Your task to perform on an android device: toggle notification dots Image 0: 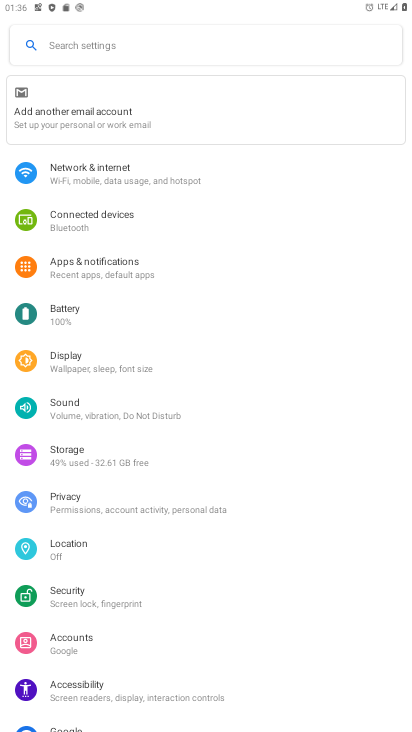
Step 0: click (107, 264)
Your task to perform on an android device: toggle notification dots Image 1: 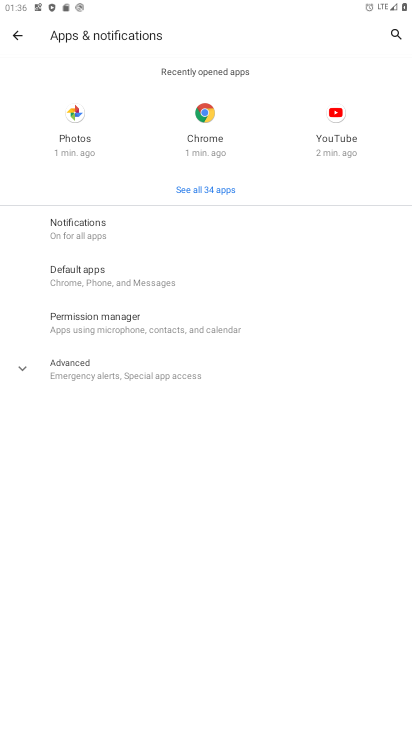
Step 1: click (78, 229)
Your task to perform on an android device: toggle notification dots Image 2: 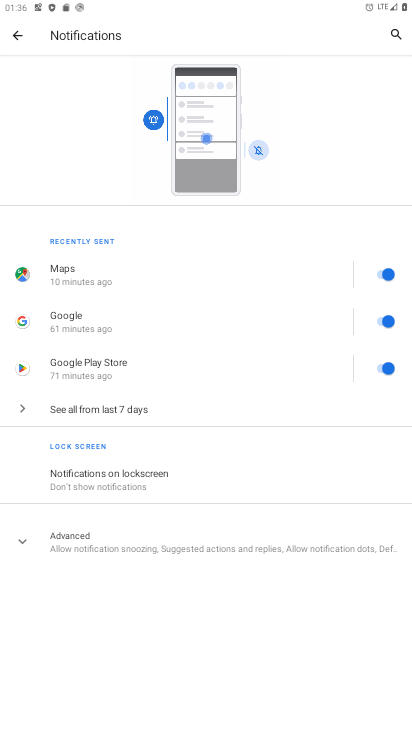
Step 2: click (131, 553)
Your task to perform on an android device: toggle notification dots Image 3: 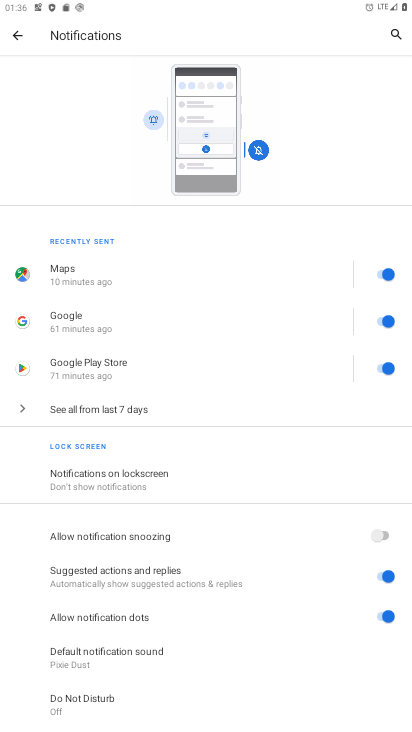
Step 3: drag from (227, 683) to (237, 456)
Your task to perform on an android device: toggle notification dots Image 4: 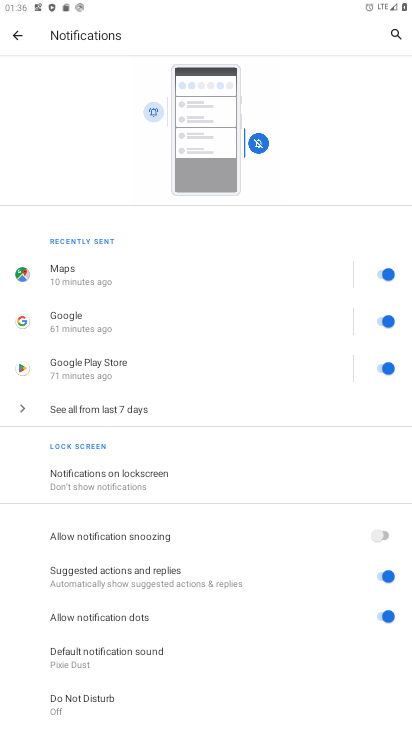
Step 4: click (386, 616)
Your task to perform on an android device: toggle notification dots Image 5: 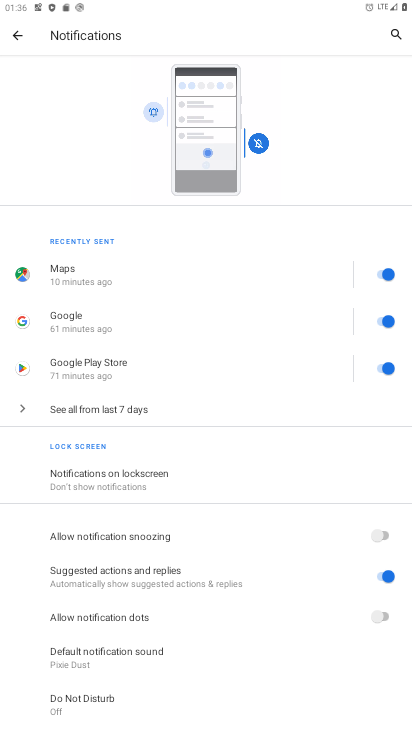
Step 5: task complete